Your task to perform on an android device: Show the shopping cart on newegg.com. Add "razer kraken" to the cart on newegg.com Image 0: 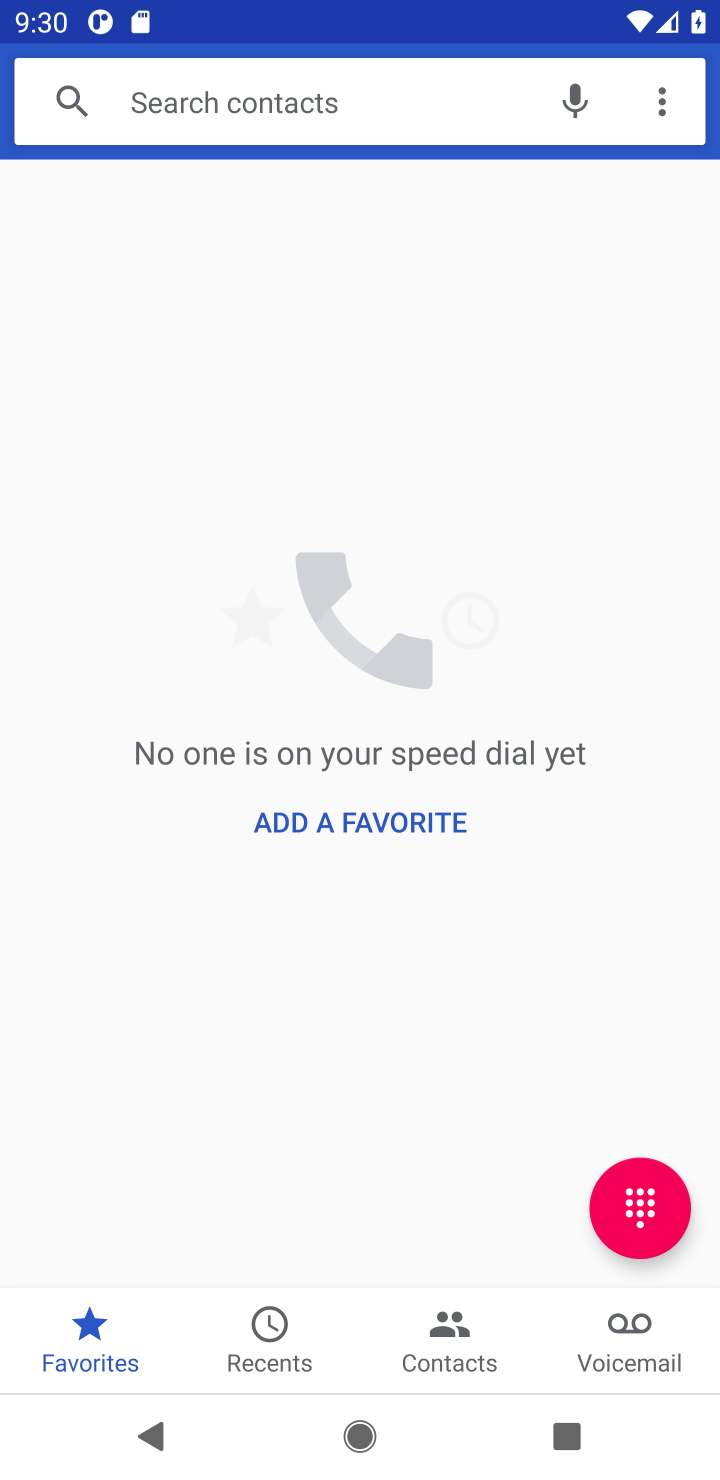
Step 0: press home button
Your task to perform on an android device: Show the shopping cart on newegg.com. Add "razer kraken" to the cart on newegg.com Image 1: 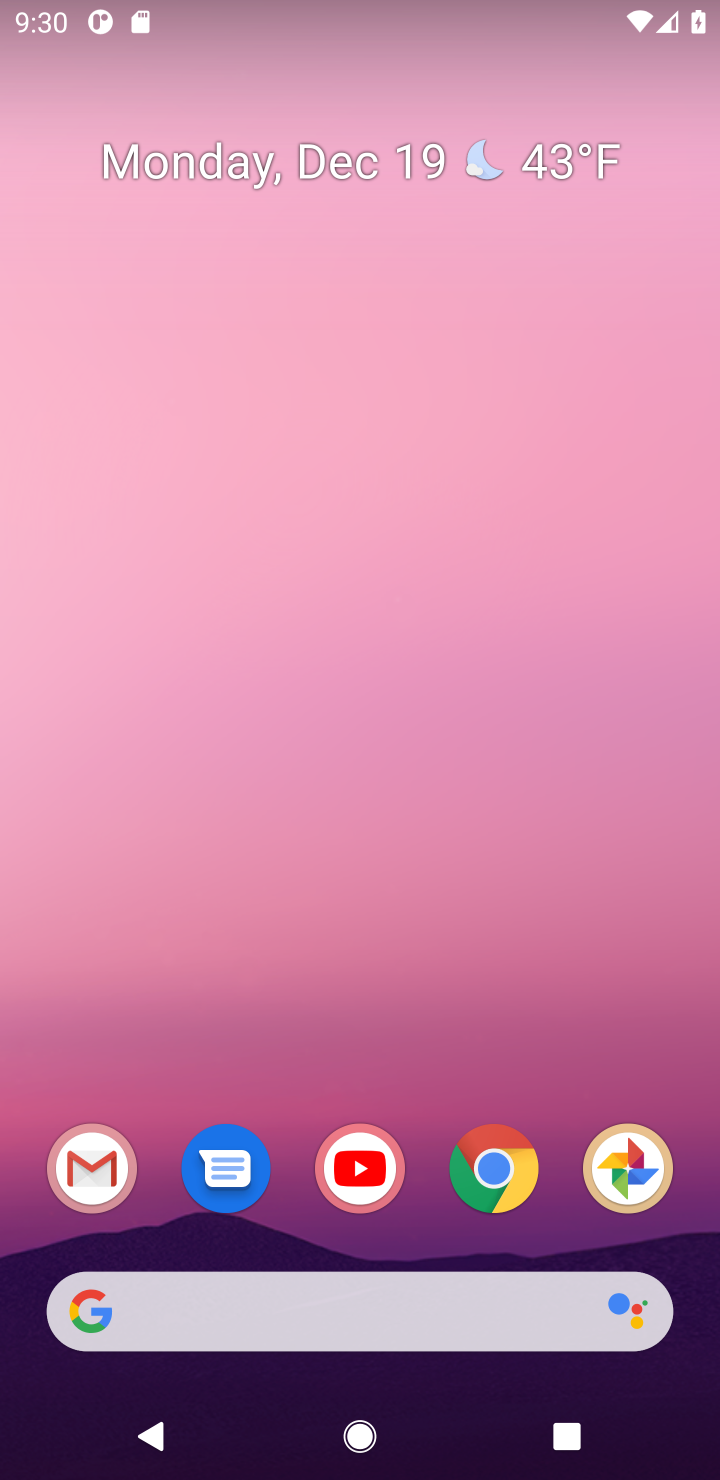
Step 1: click (492, 1174)
Your task to perform on an android device: Show the shopping cart on newegg.com. Add "razer kraken" to the cart on newegg.com Image 2: 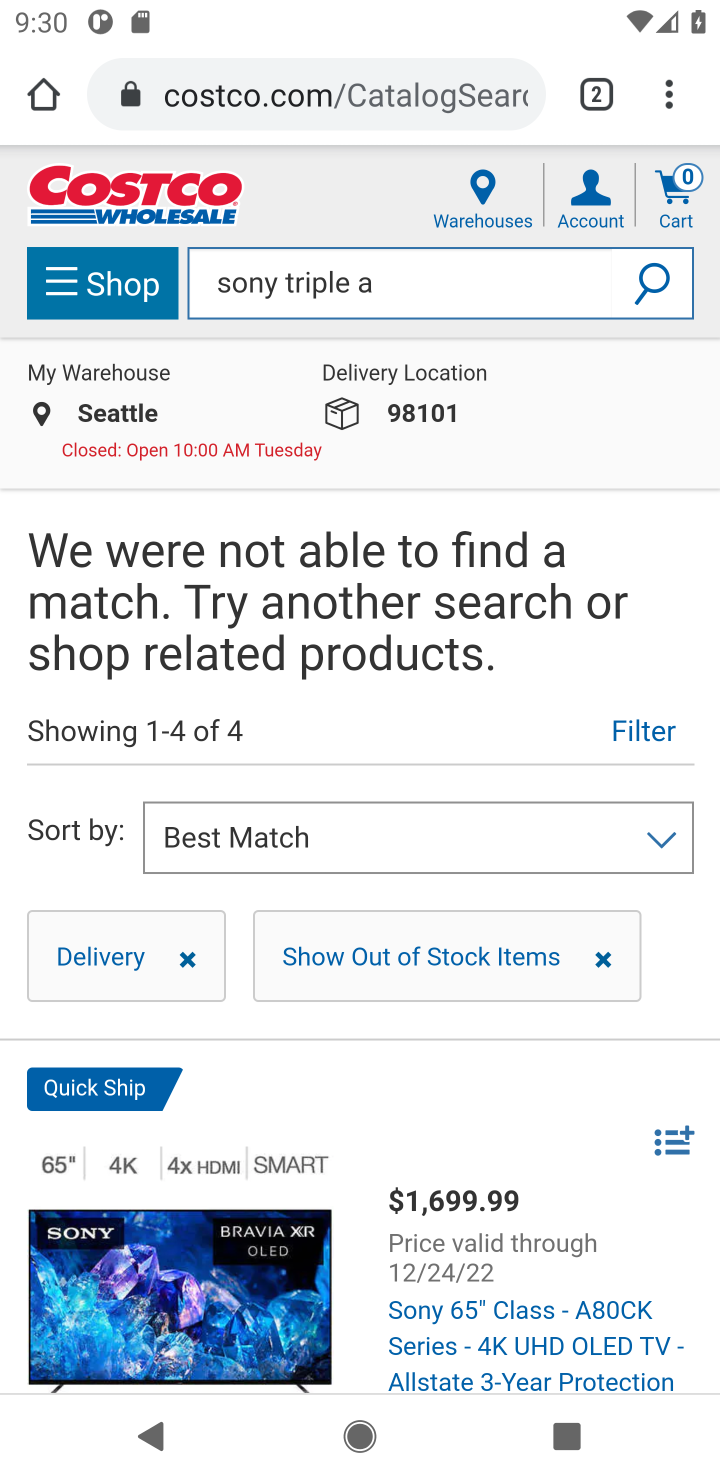
Step 2: click (282, 103)
Your task to perform on an android device: Show the shopping cart on newegg.com. Add "razer kraken" to the cart on newegg.com Image 3: 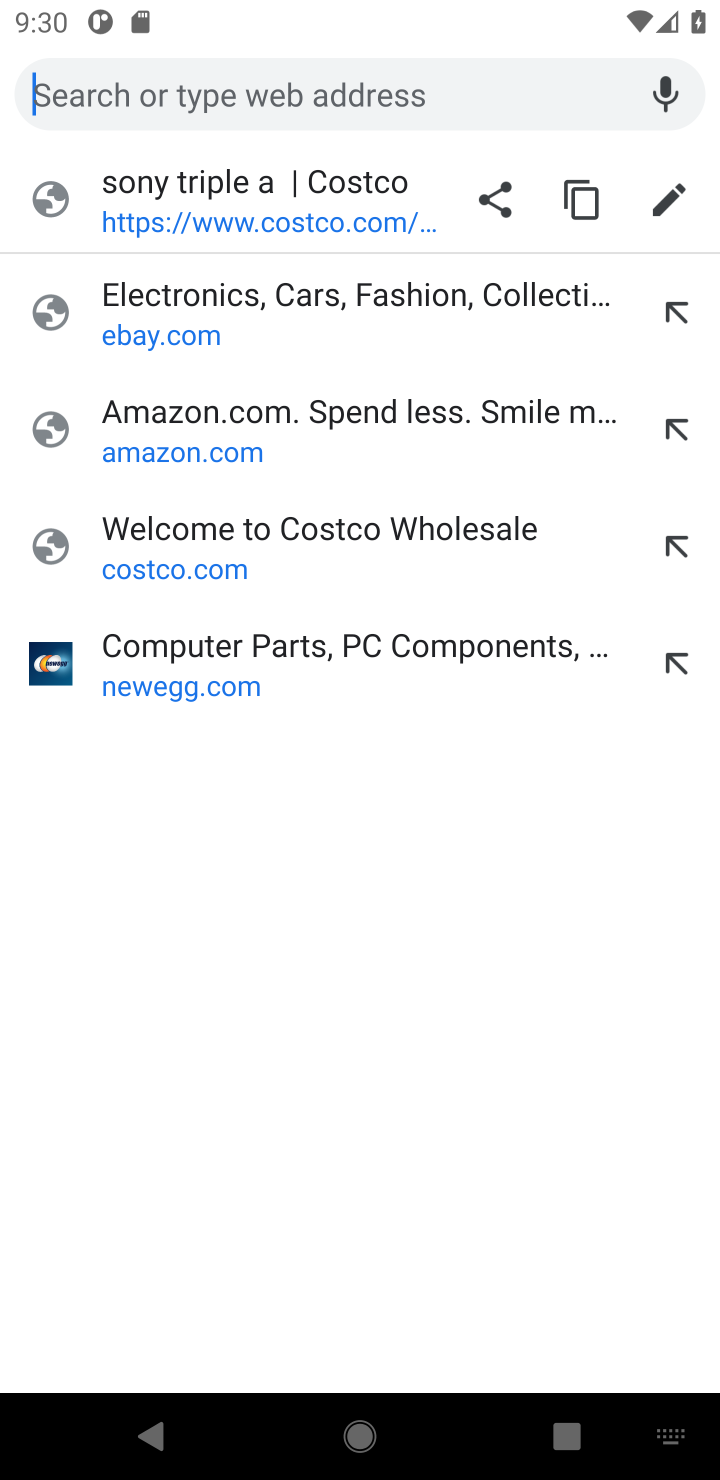
Step 3: click (154, 678)
Your task to perform on an android device: Show the shopping cart on newegg.com. Add "razer kraken" to the cart on newegg.com Image 4: 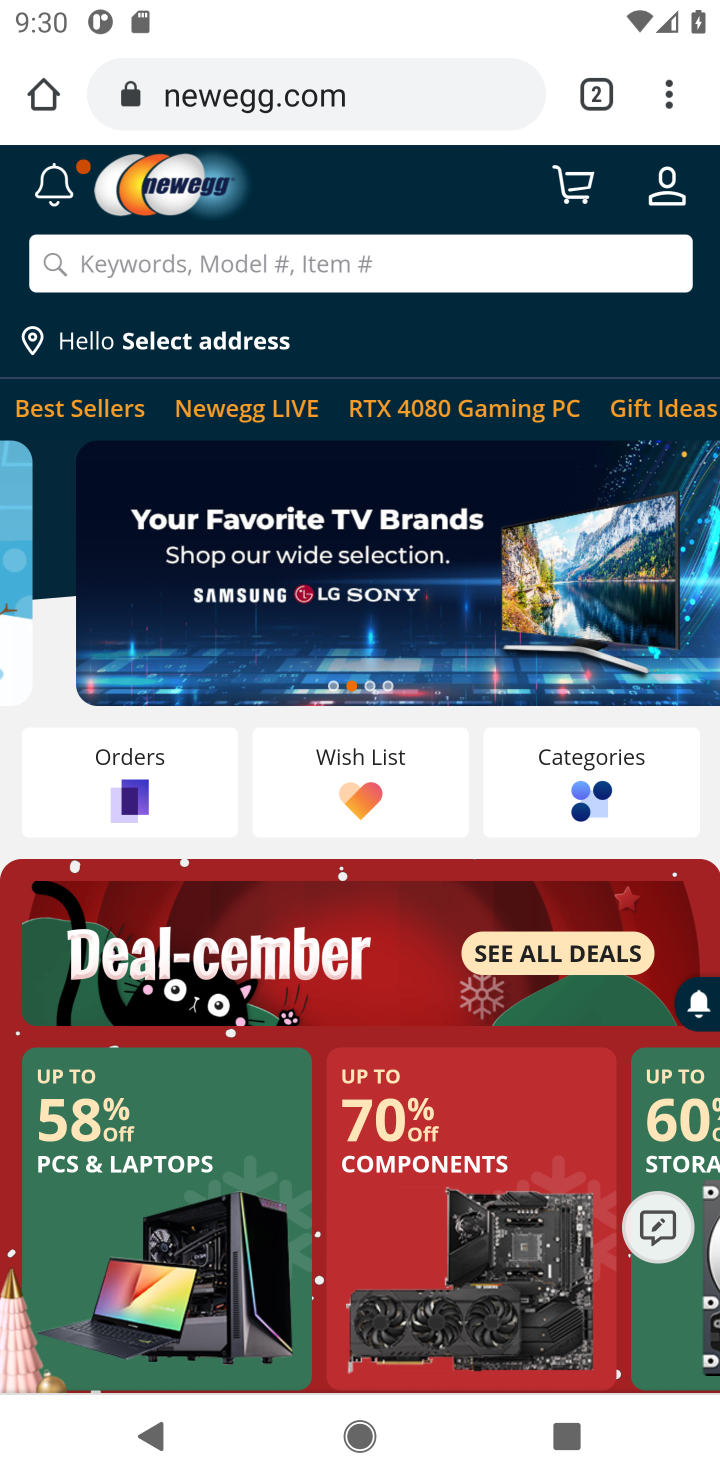
Step 4: click (565, 186)
Your task to perform on an android device: Show the shopping cart on newegg.com. Add "razer kraken" to the cart on newegg.com Image 5: 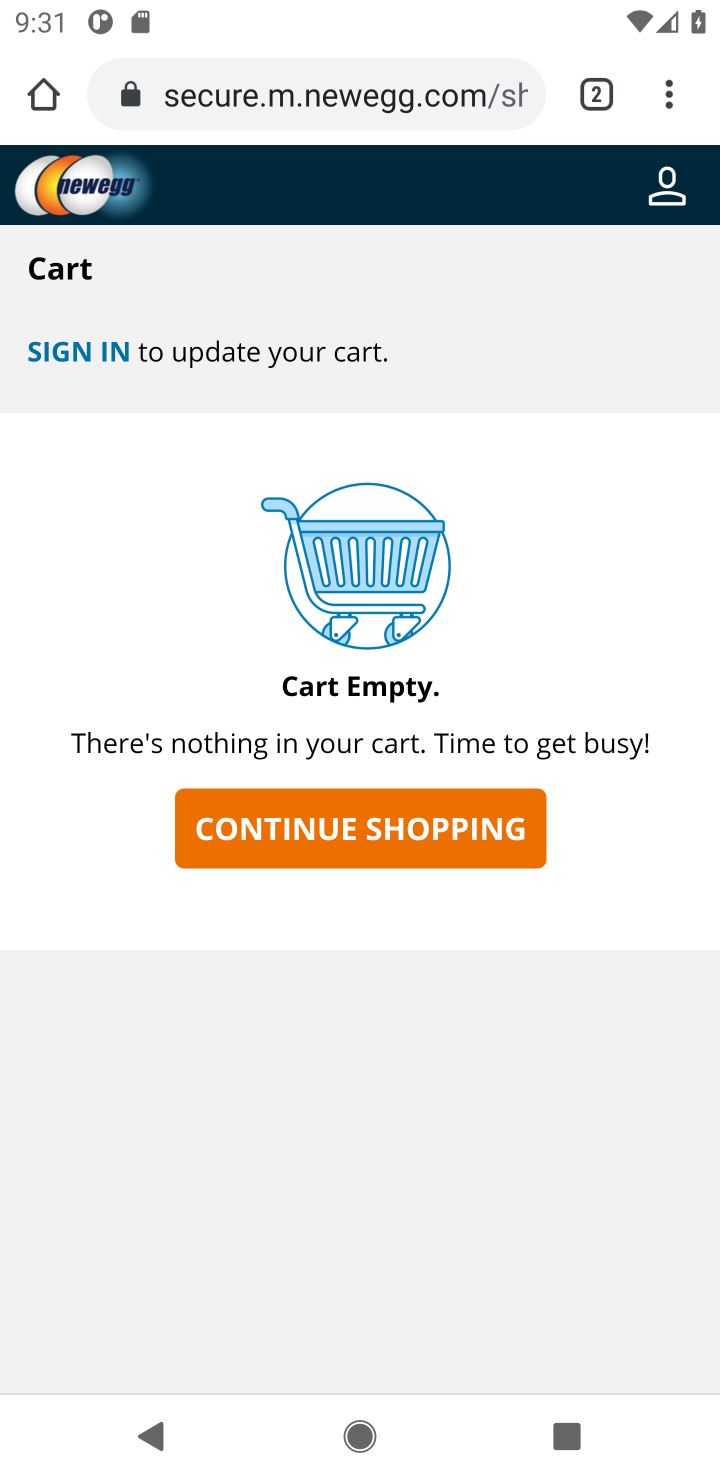
Step 5: click (316, 832)
Your task to perform on an android device: Show the shopping cart on newegg.com. Add "razer kraken" to the cart on newegg.com Image 6: 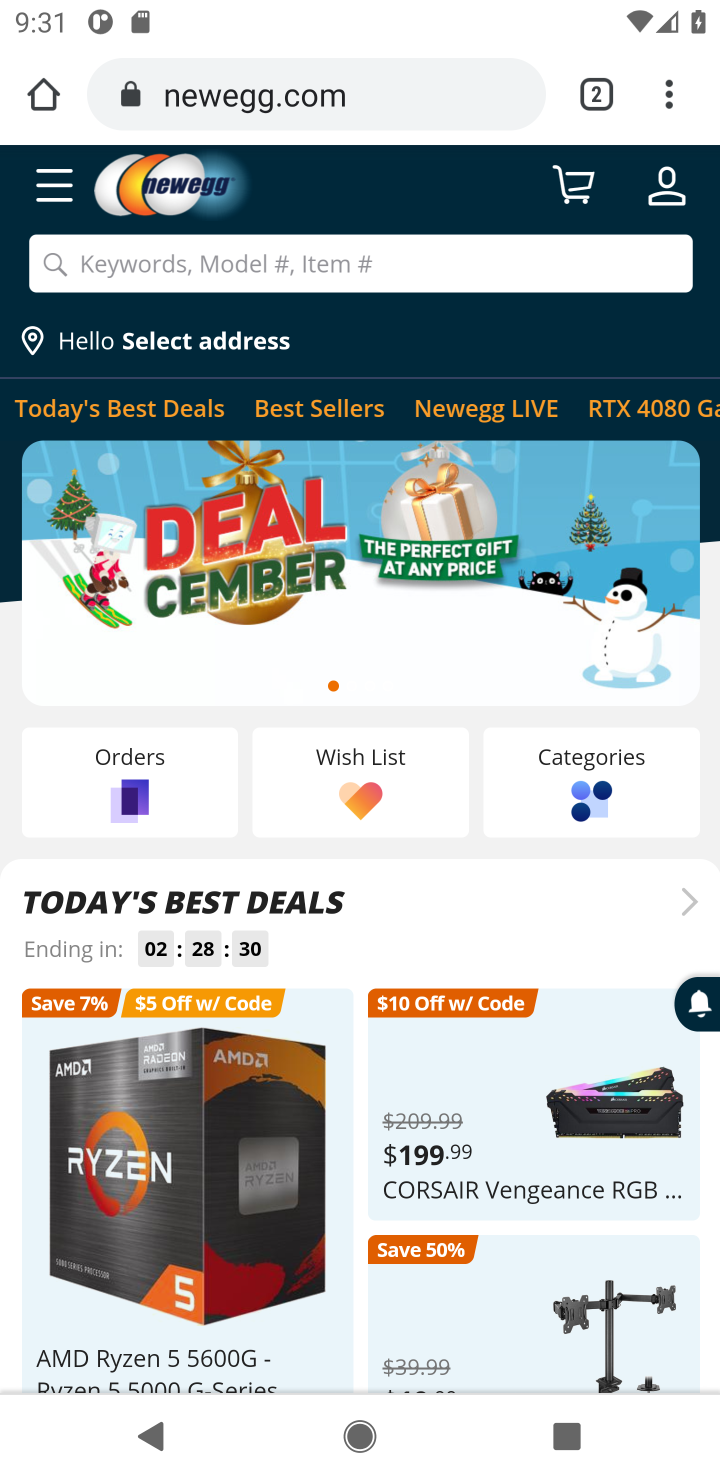
Step 6: click (146, 259)
Your task to perform on an android device: Show the shopping cart on newegg.com. Add "razer kraken" to the cart on newegg.com Image 7: 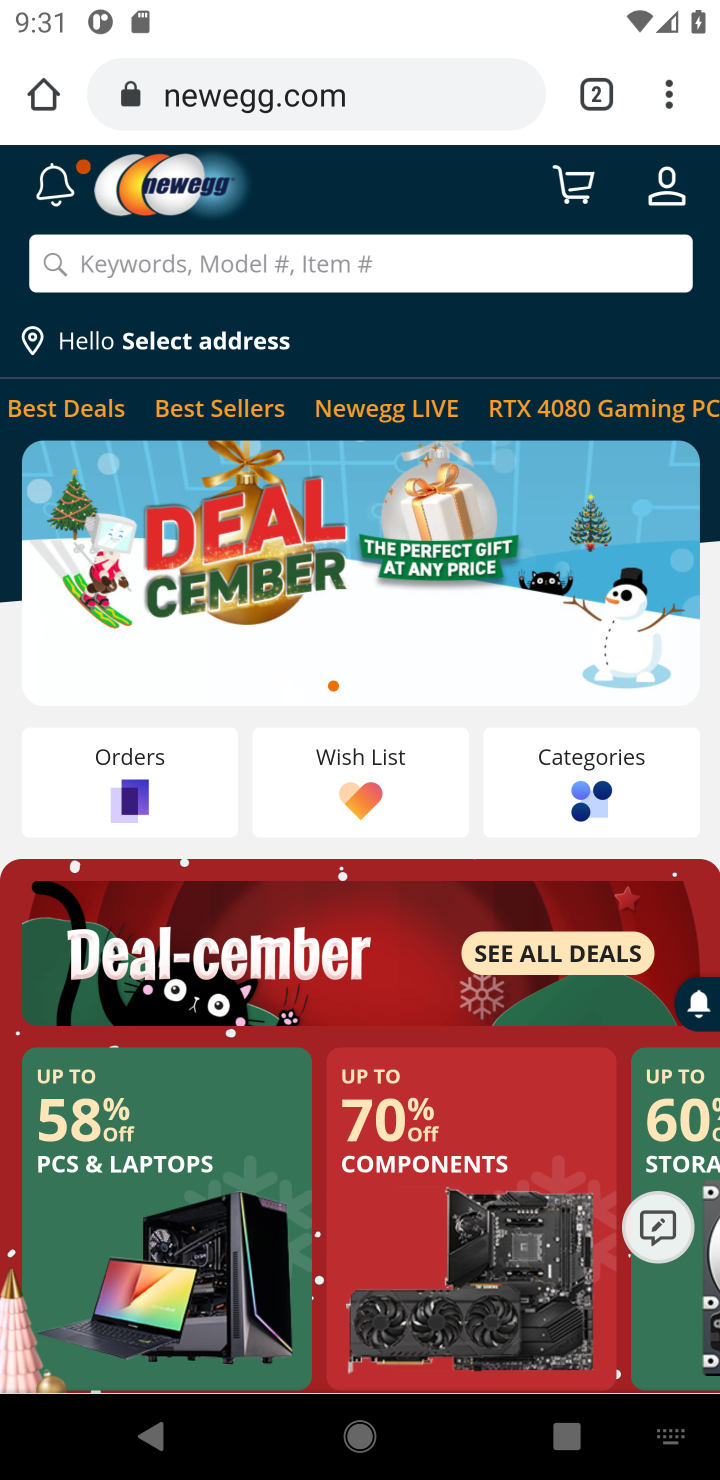
Step 7: type "razer kraken"
Your task to perform on an android device: Show the shopping cart on newegg.com. Add "razer kraken" to the cart on newegg.com Image 8: 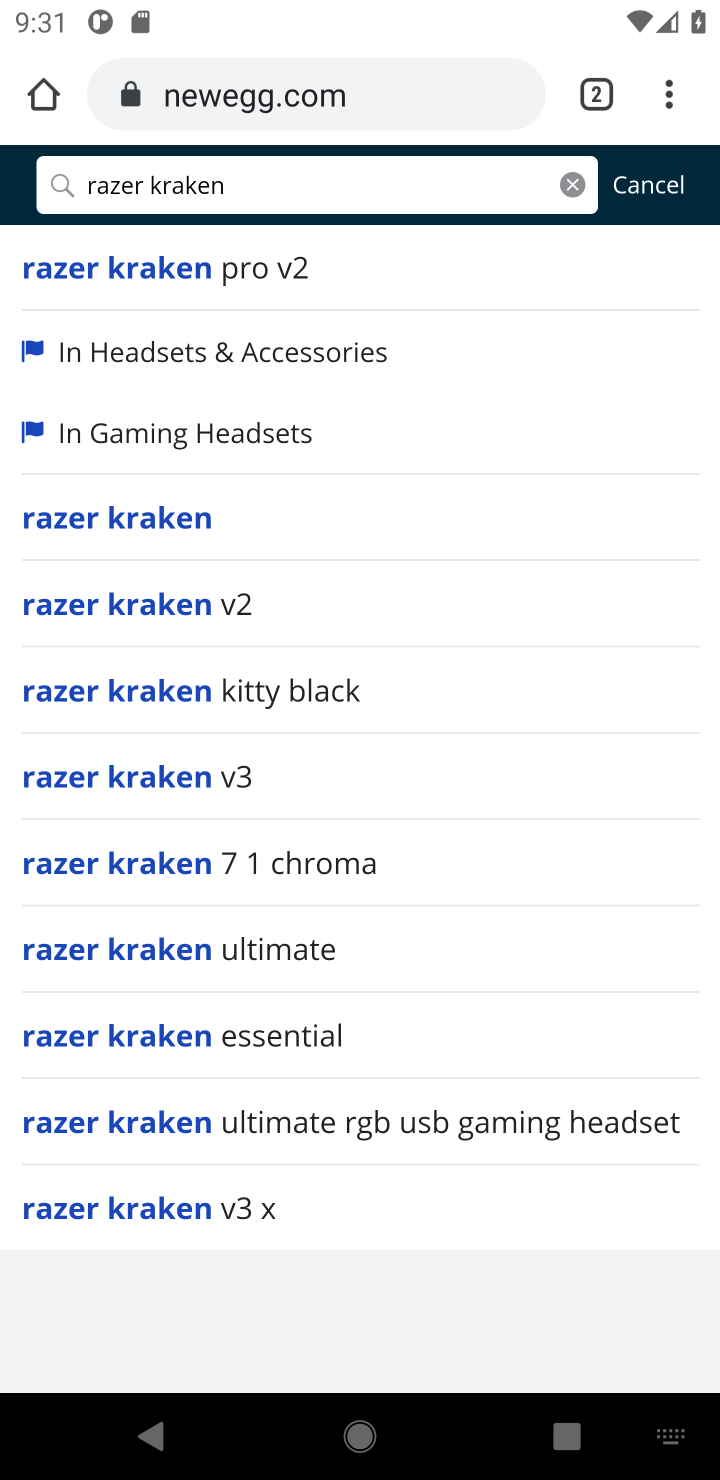
Step 8: click (124, 520)
Your task to perform on an android device: Show the shopping cart on newegg.com. Add "razer kraken" to the cart on newegg.com Image 9: 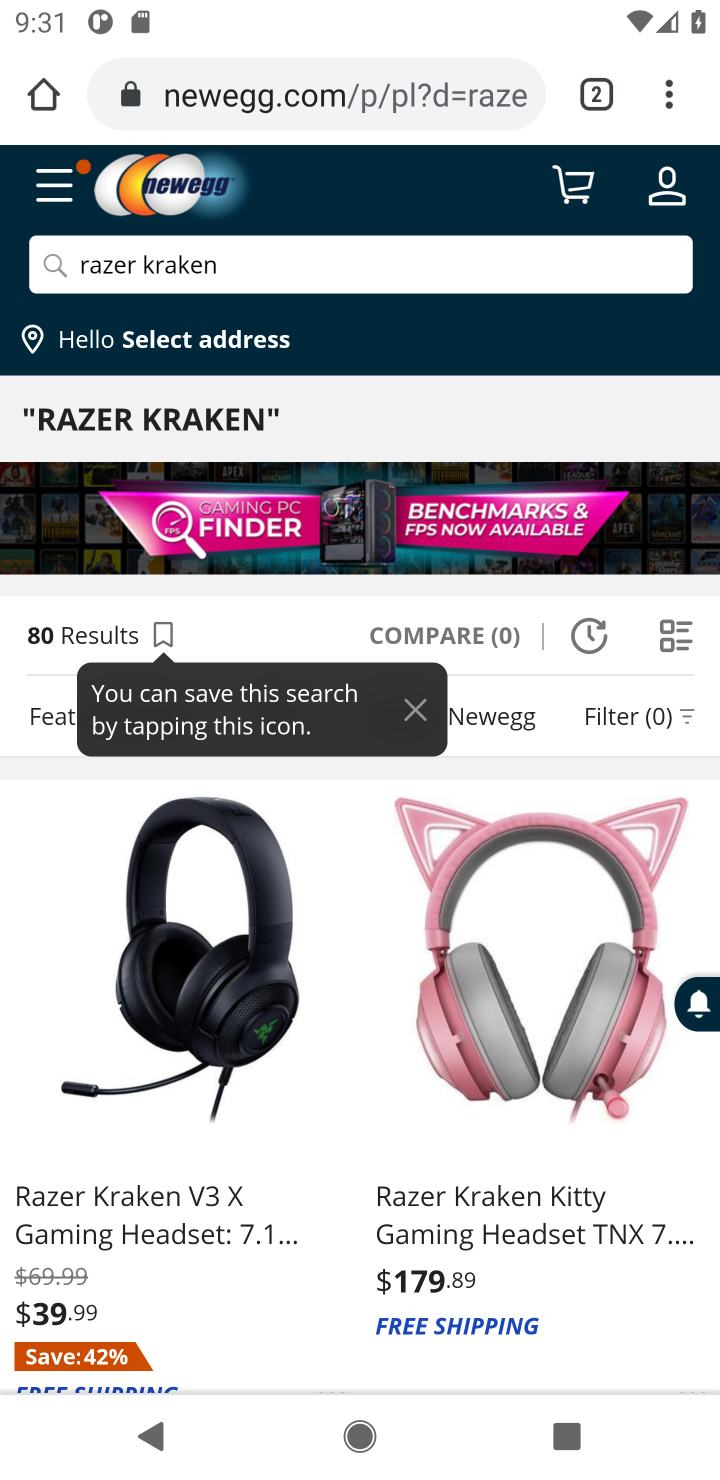
Step 9: click (146, 1219)
Your task to perform on an android device: Show the shopping cart on newegg.com. Add "razer kraken" to the cart on newegg.com Image 10: 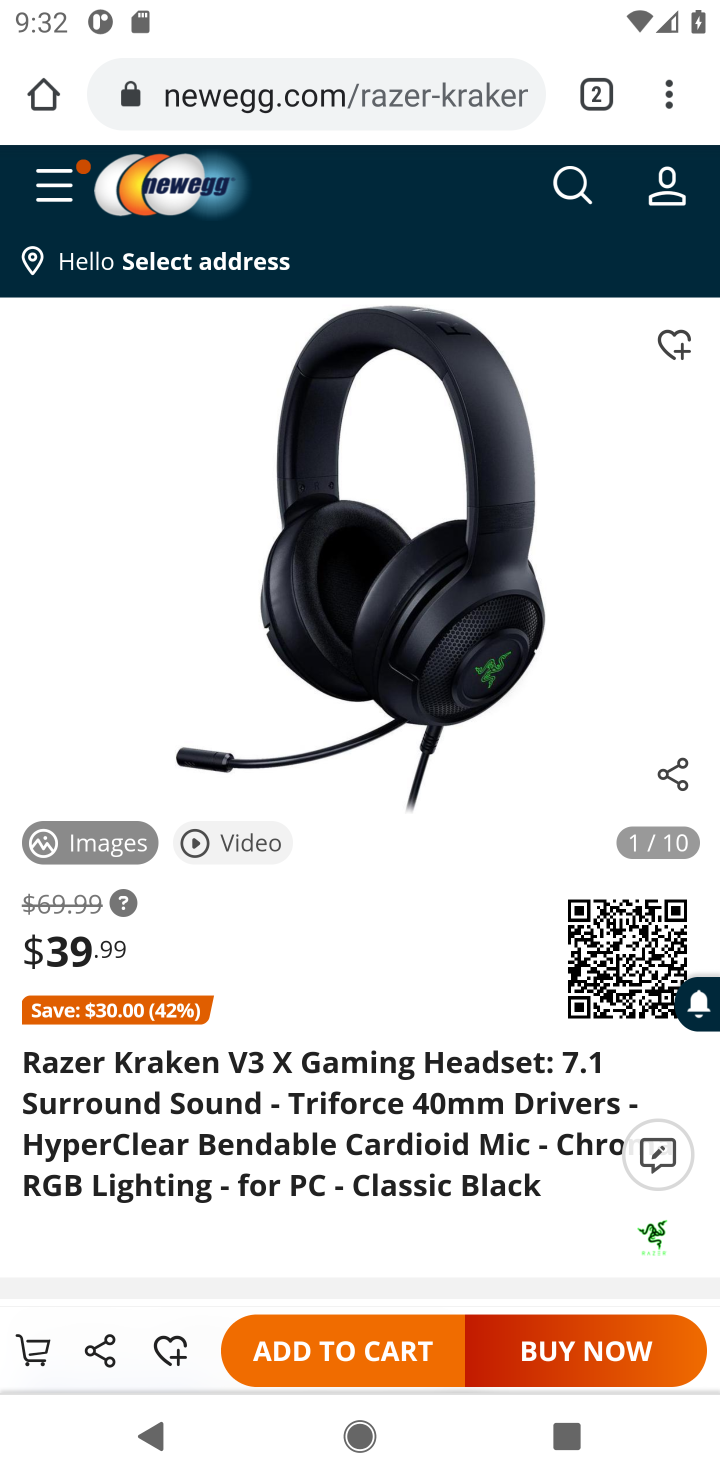
Step 10: click (319, 1354)
Your task to perform on an android device: Show the shopping cart on newegg.com. Add "razer kraken" to the cart on newegg.com Image 11: 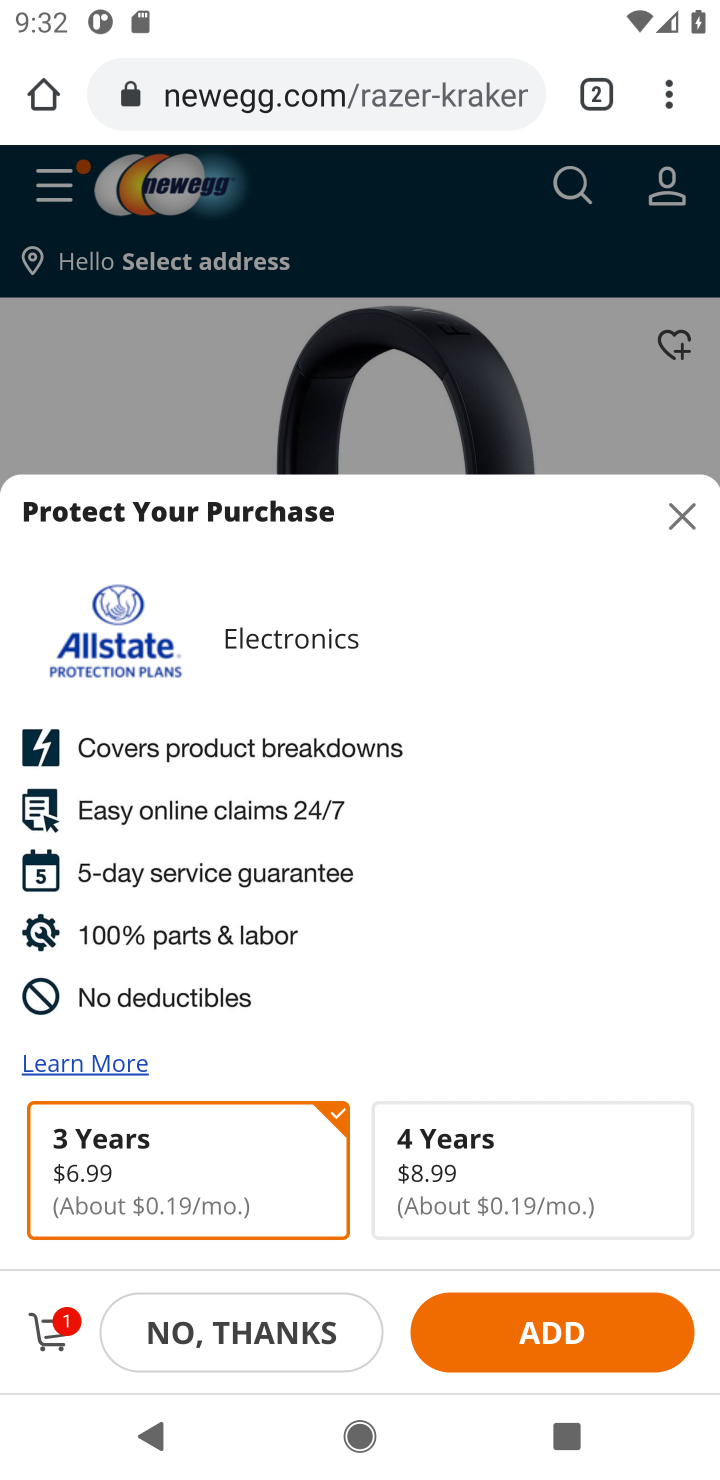
Step 11: task complete